Your task to perform on an android device: empty trash in the gmail app Image 0: 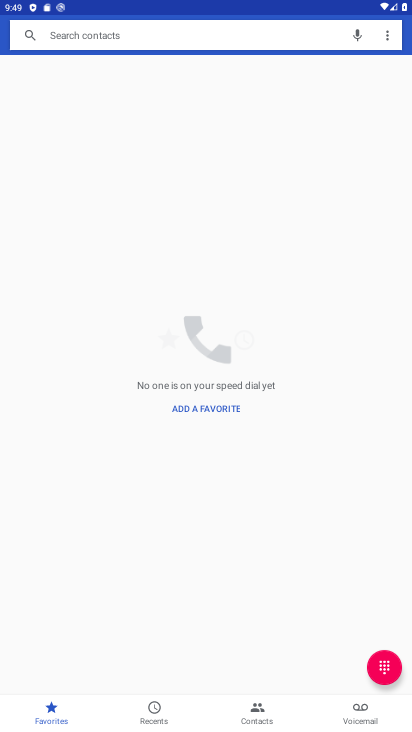
Step 0: press home button
Your task to perform on an android device: empty trash in the gmail app Image 1: 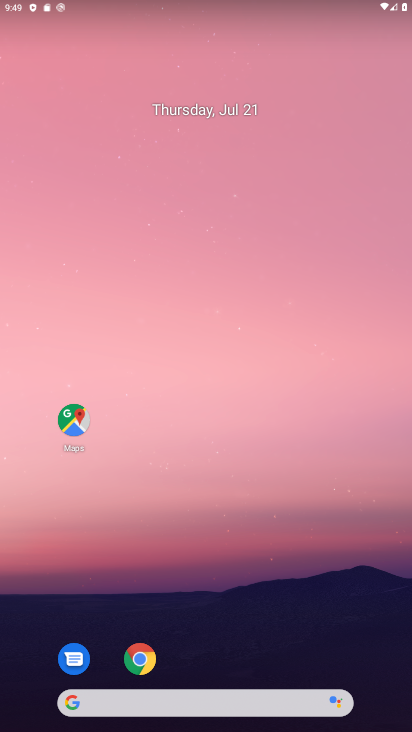
Step 1: drag from (266, 615) to (269, 20)
Your task to perform on an android device: empty trash in the gmail app Image 2: 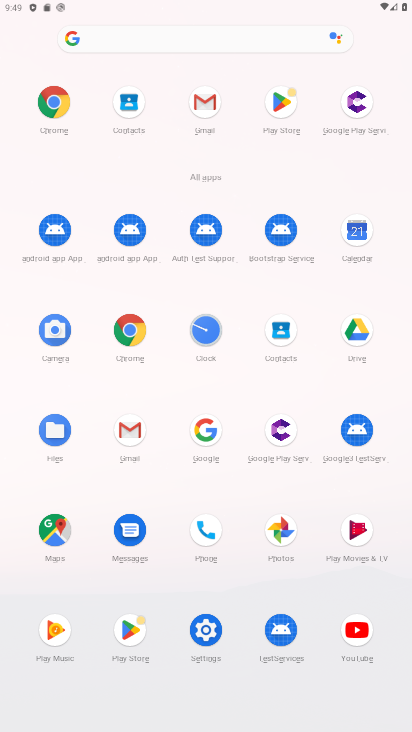
Step 2: click (202, 89)
Your task to perform on an android device: empty trash in the gmail app Image 3: 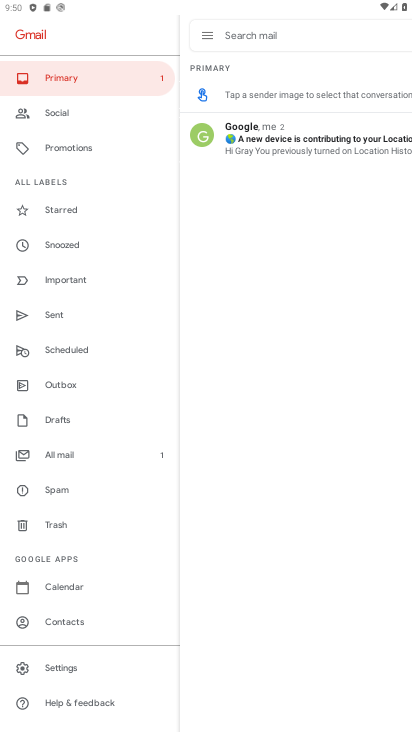
Step 3: click (43, 528)
Your task to perform on an android device: empty trash in the gmail app Image 4: 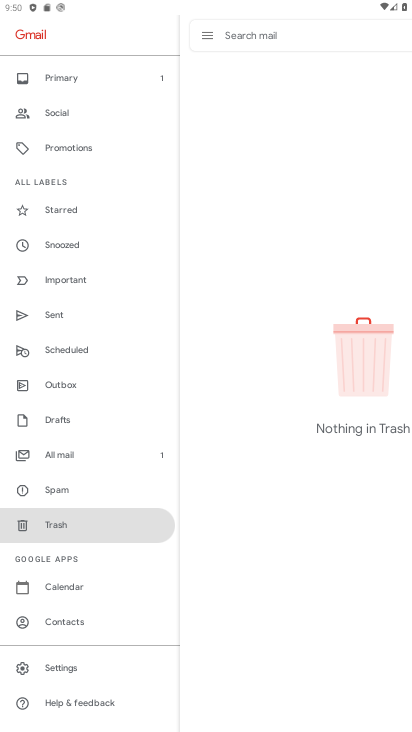
Step 4: task complete